Your task to perform on an android device: Open network settings Image 0: 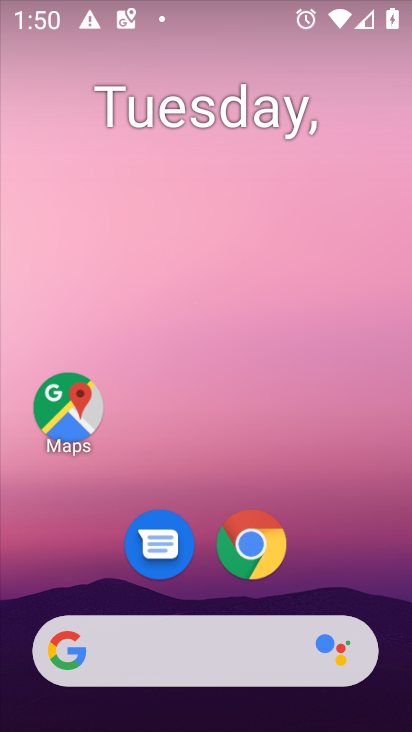
Step 0: drag from (288, 282) to (275, 21)
Your task to perform on an android device: Open network settings Image 1: 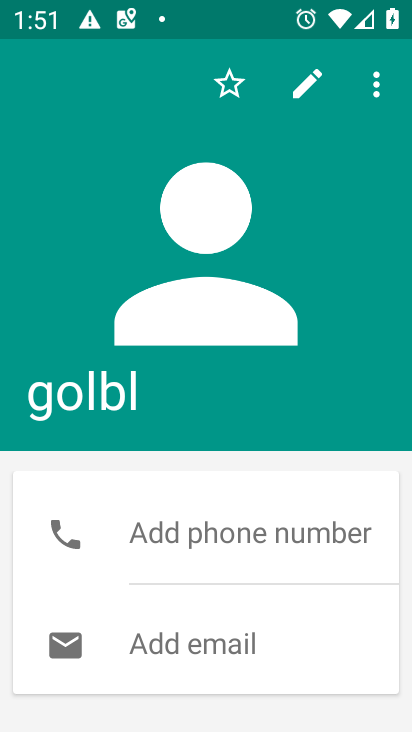
Step 1: press home button
Your task to perform on an android device: Open network settings Image 2: 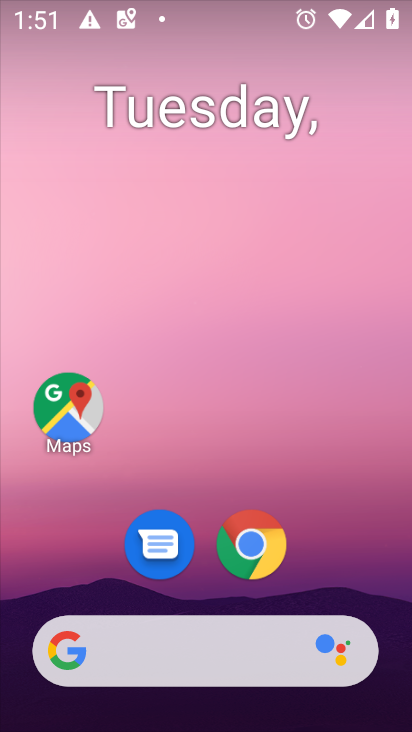
Step 2: drag from (350, 509) to (351, 87)
Your task to perform on an android device: Open network settings Image 3: 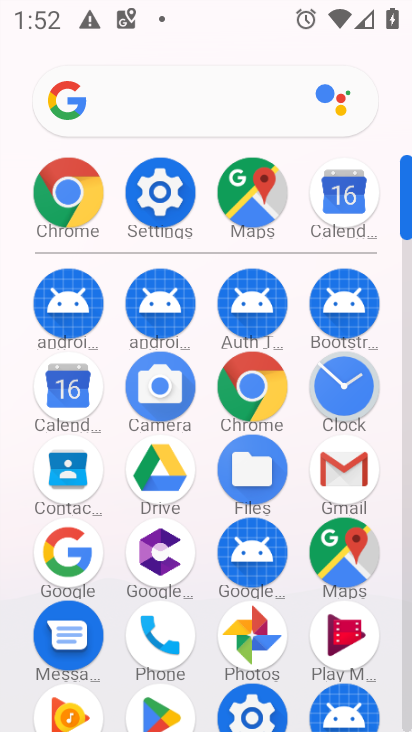
Step 3: click (178, 179)
Your task to perform on an android device: Open network settings Image 4: 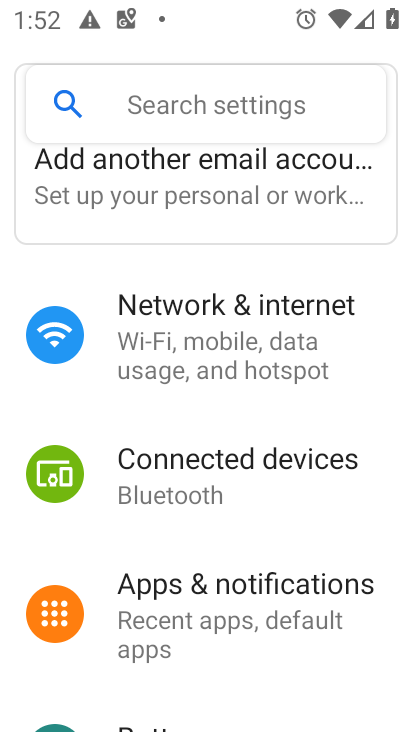
Step 4: click (180, 322)
Your task to perform on an android device: Open network settings Image 5: 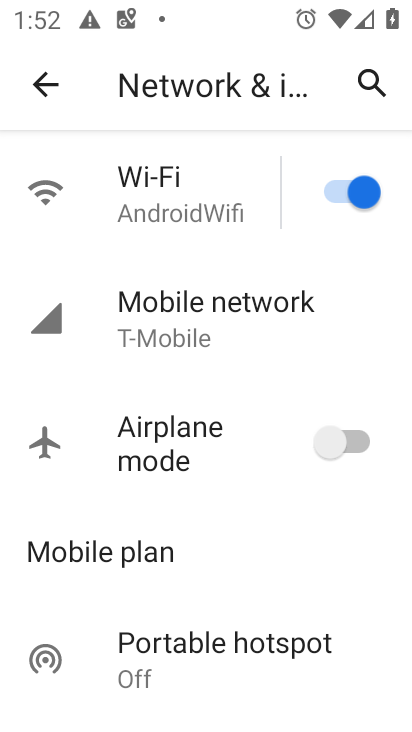
Step 5: task complete